Your task to perform on an android device: Open internet settings Image 0: 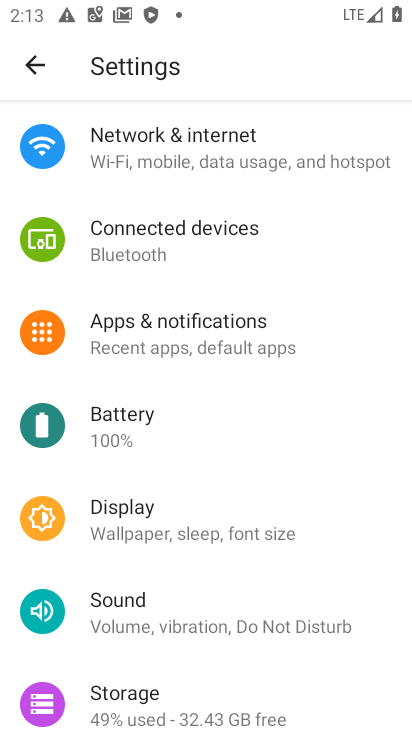
Step 0: press home button
Your task to perform on an android device: Open internet settings Image 1: 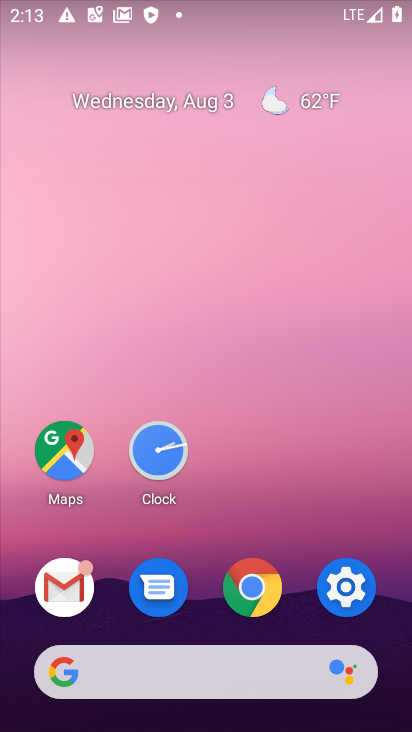
Step 1: click (346, 590)
Your task to perform on an android device: Open internet settings Image 2: 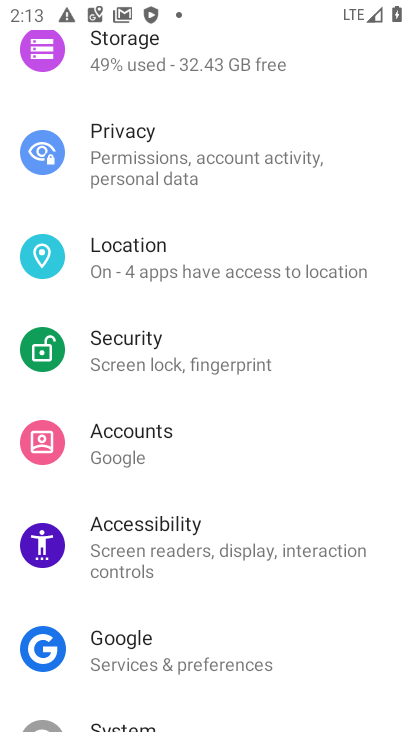
Step 2: drag from (276, 194) to (287, 564)
Your task to perform on an android device: Open internet settings Image 3: 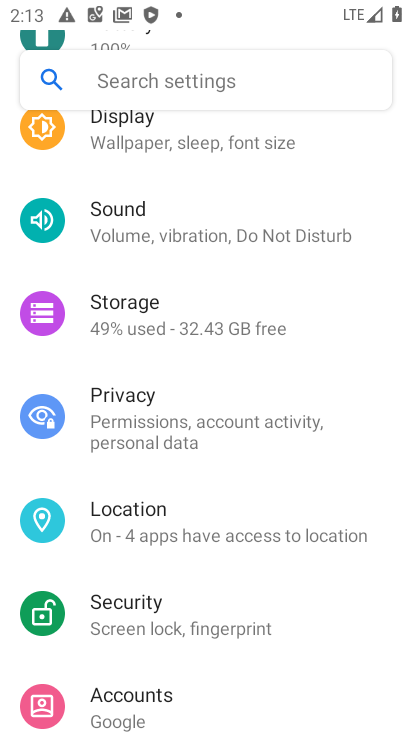
Step 3: drag from (173, 169) to (231, 703)
Your task to perform on an android device: Open internet settings Image 4: 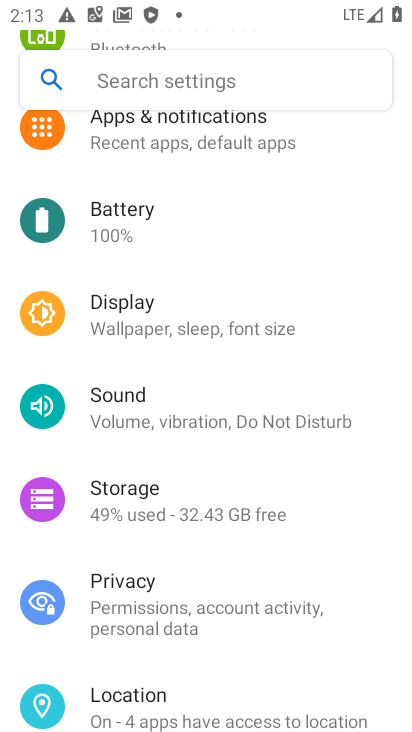
Step 4: drag from (208, 207) to (187, 707)
Your task to perform on an android device: Open internet settings Image 5: 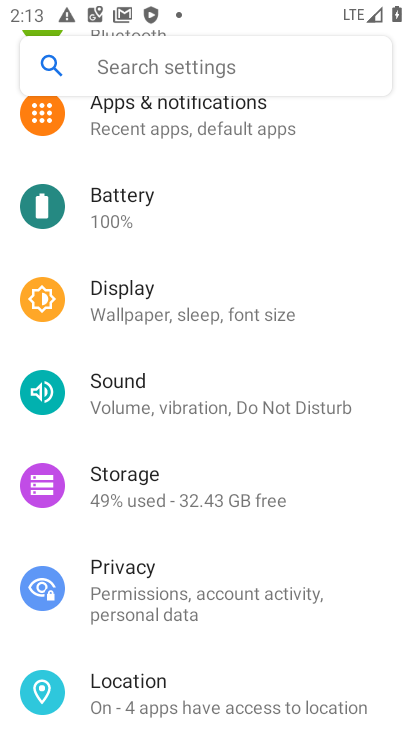
Step 5: drag from (220, 267) to (226, 642)
Your task to perform on an android device: Open internet settings Image 6: 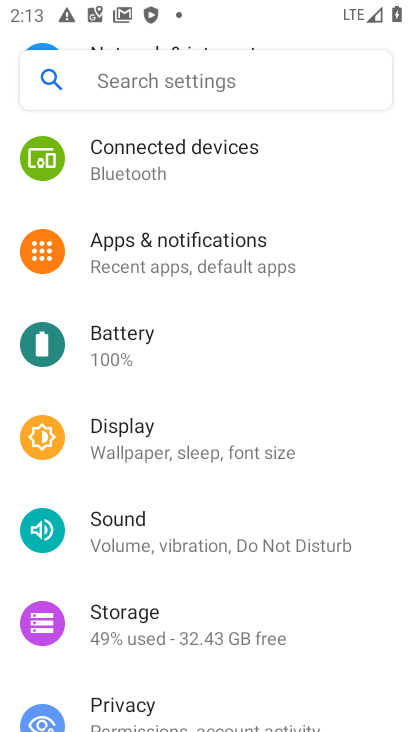
Step 6: drag from (203, 166) to (233, 446)
Your task to perform on an android device: Open internet settings Image 7: 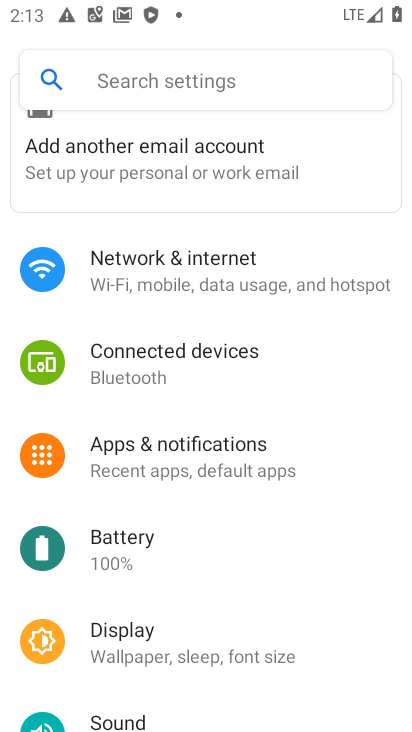
Step 7: click (145, 267)
Your task to perform on an android device: Open internet settings Image 8: 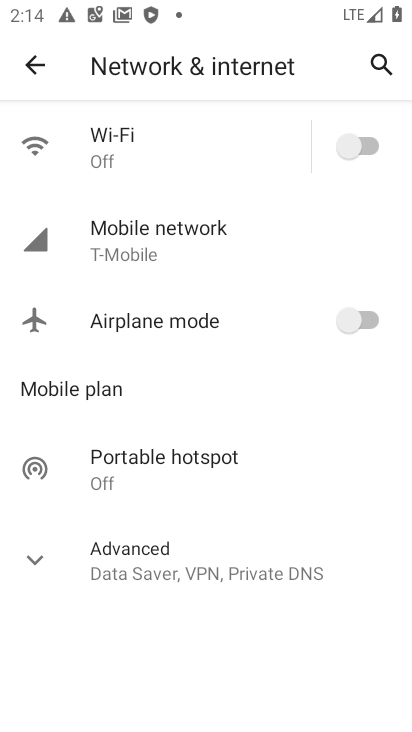
Step 8: click (155, 234)
Your task to perform on an android device: Open internet settings Image 9: 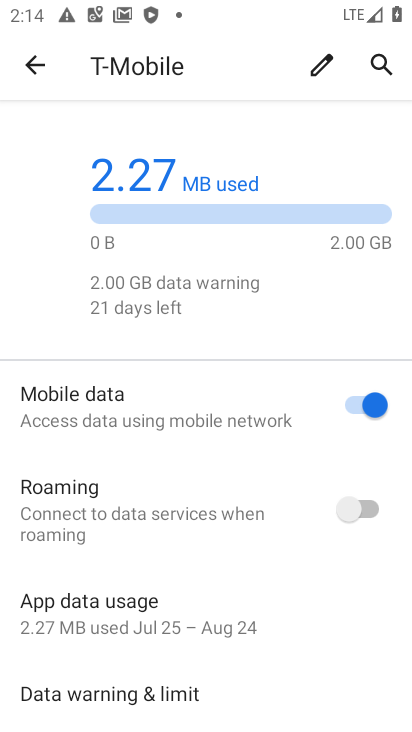
Step 9: task complete